Your task to perform on an android device: Show me productivity apps on the Play Store Image 0: 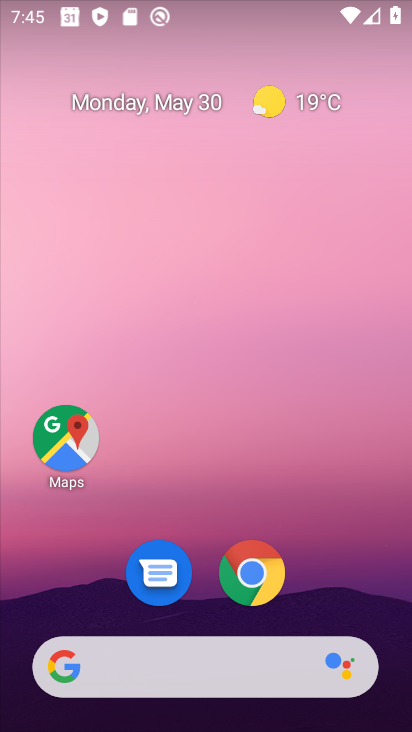
Step 0: drag from (201, 599) to (215, 340)
Your task to perform on an android device: Show me productivity apps on the Play Store Image 1: 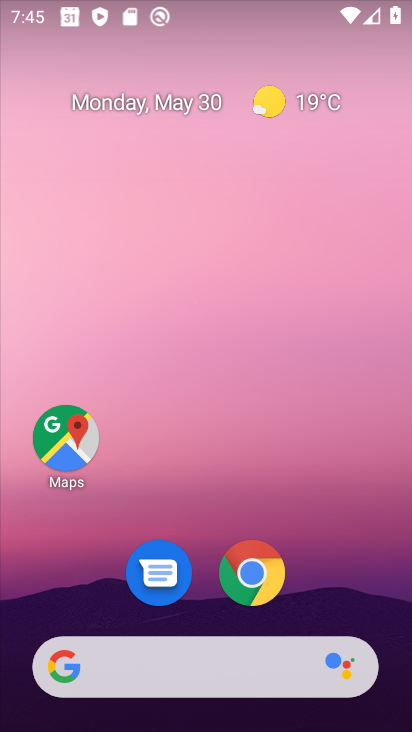
Step 1: drag from (202, 617) to (223, 430)
Your task to perform on an android device: Show me productivity apps on the Play Store Image 2: 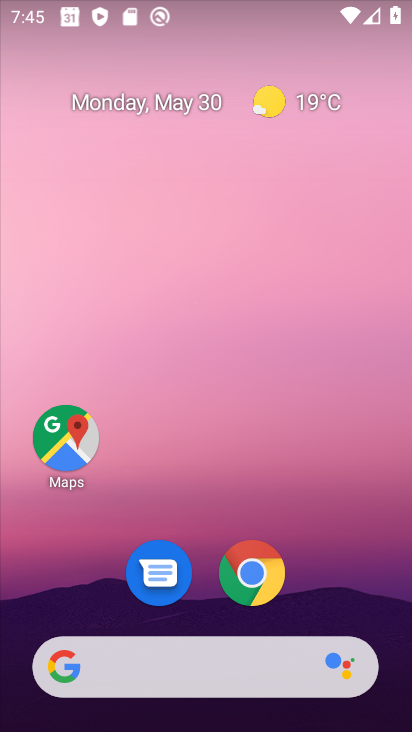
Step 2: drag from (198, 602) to (211, 362)
Your task to perform on an android device: Show me productivity apps on the Play Store Image 3: 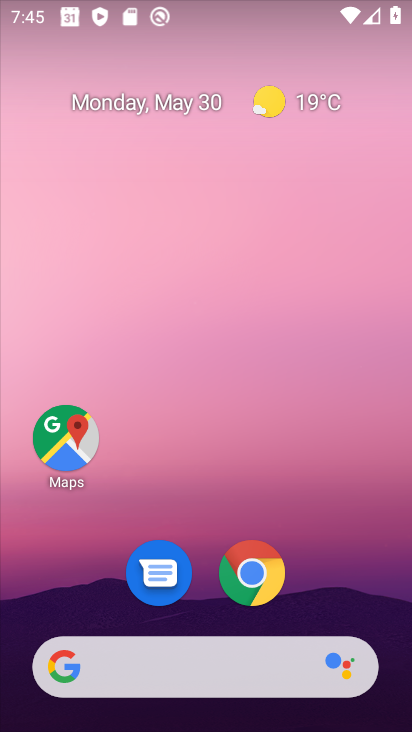
Step 3: drag from (202, 633) to (222, 26)
Your task to perform on an android device: Show me productivity apps on the Play Store Image 4: 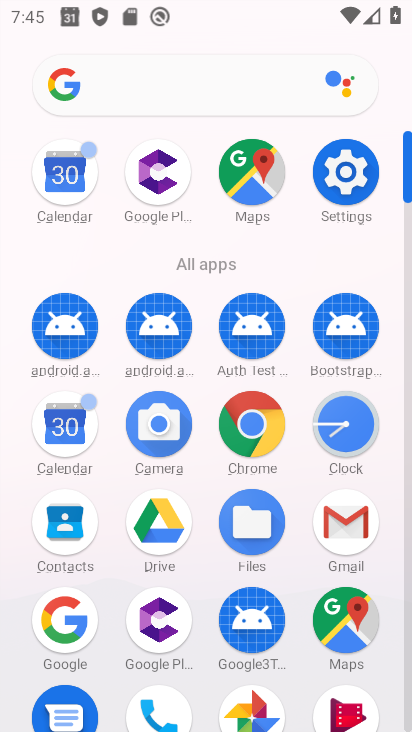
Step 4: drag from (107, 569) to (133, 325)
Your task to perform on an android device: Show me productivity apps on the Play Store Image 5: 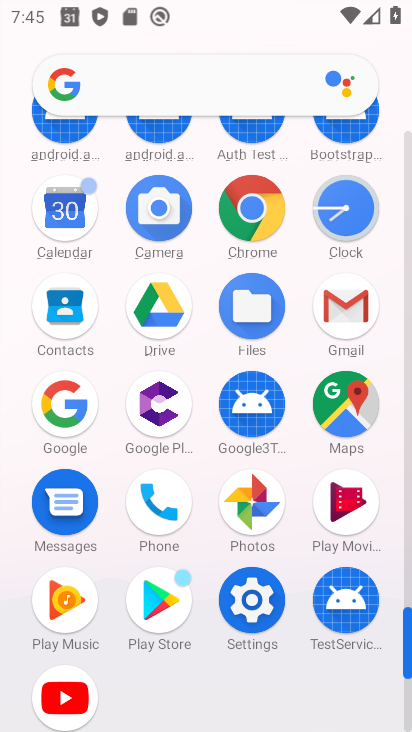
Step 5: click (165, 603)
Your task to perform on an android device: Show me productivity apps on the Play Store Image 6: 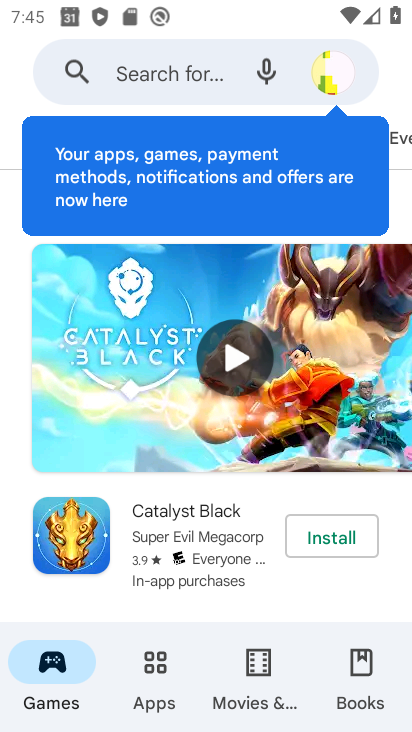
Step 6: click (152, 678)
Your task to perform on an android device: Show me productivity apps on the Play Store Image 7: 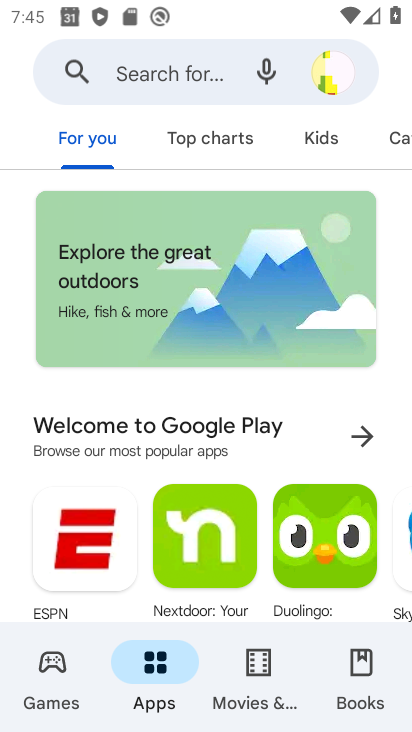
Step 7: click (395, 132)
Your task to perform on an android device: Show me productivity apps on the Play Store Image 8: 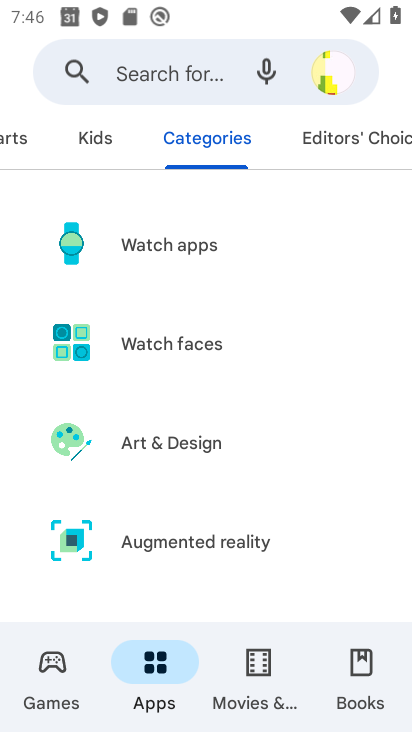
Step 8: drag from (173, 511) to (194, 415)
Your task to perform on an android device: Show me productivity apps on the Play Store Image 9: 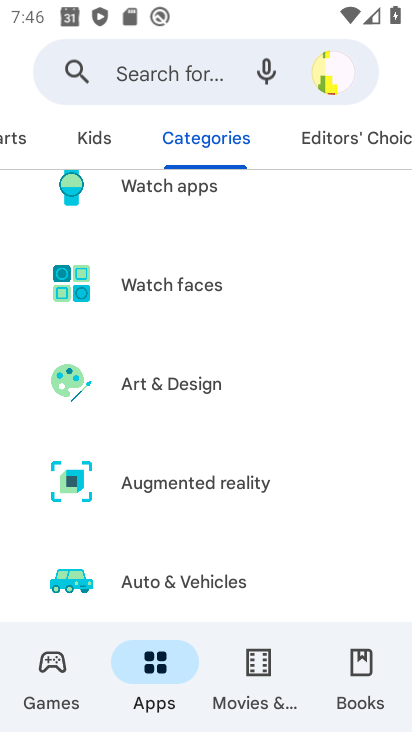
Step 9: drag from (159, 550) to (186, 393)
Your task to perform on an android device: Show me productivity apps on the Play Store Image 10: 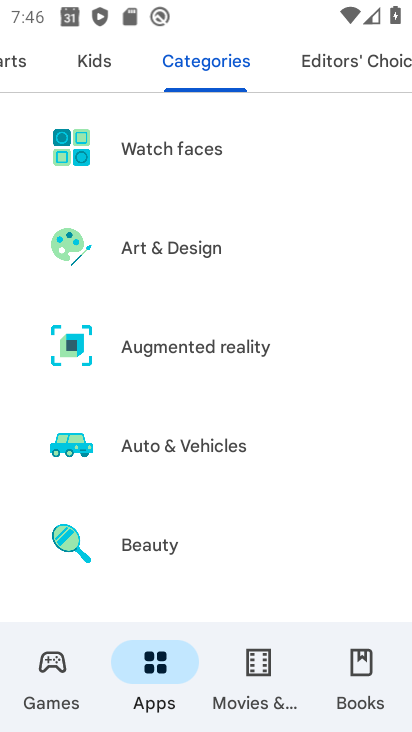
Step 10: drag from (149, 563) to (223, 192)
Your task to perform on an android device: Show me productivity apps on the Play Store Image 11: 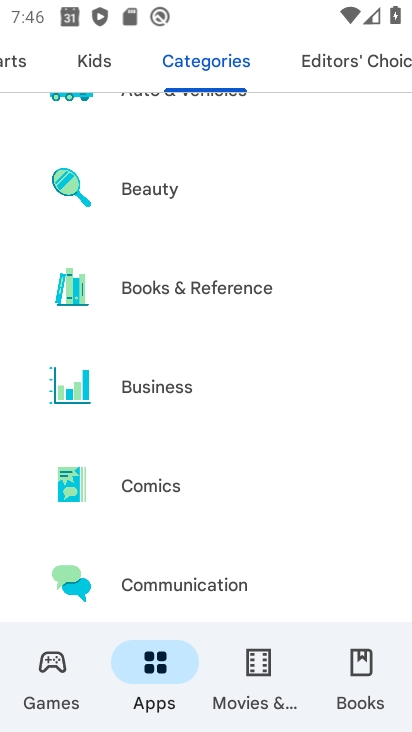
Step 11: drag from (195, 577) to (203, 402)
Your task to perform on an android device: Show me productivity apps on the Play Store Image 12: 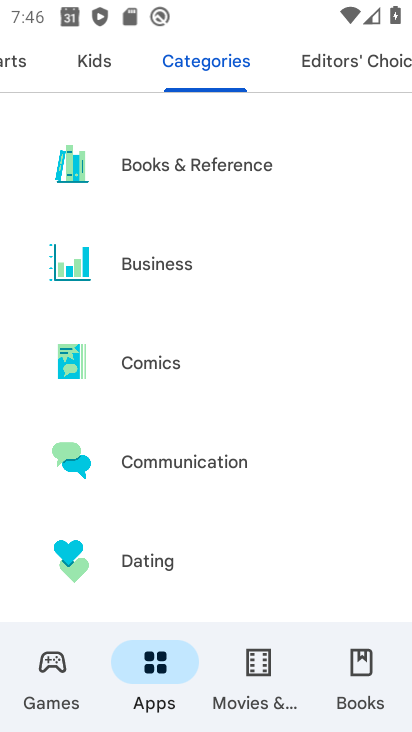
Step 12: drag from (162, 600) to (165, 561)
Your task to perform on an android device: Show me productivity apps on the Play Store Image 13: 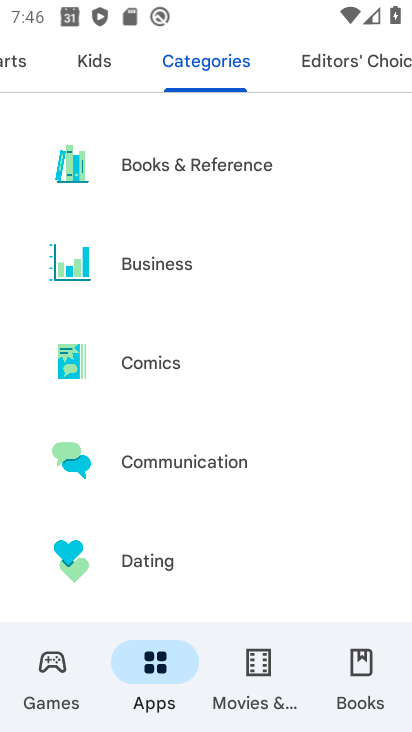
Step 13: drag from (158, 562) to (176, 400)
Your task to perform on an android device: Show me productivity apps on the Play Store Image 14: 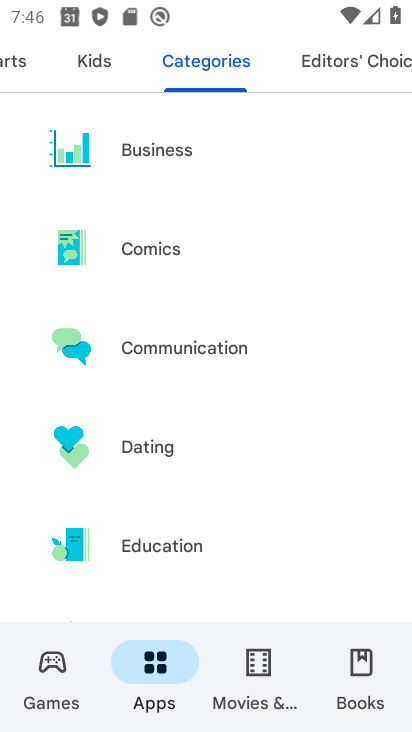
Step 14: drag from (152, 574) to (213, 211)
Your task to perform on an android device: Show me productivity apps on the Play Store Image 15: 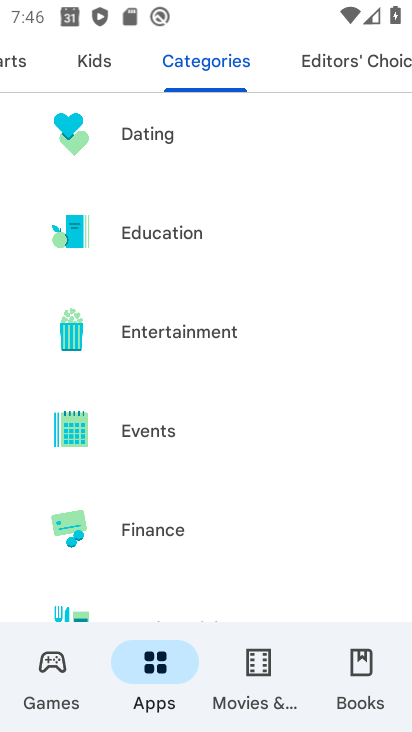
Step 15: drag from (156, 573) to (187, 197)
Your task to perform on an android device: Show me productivity apps on the Play Store Image 16: 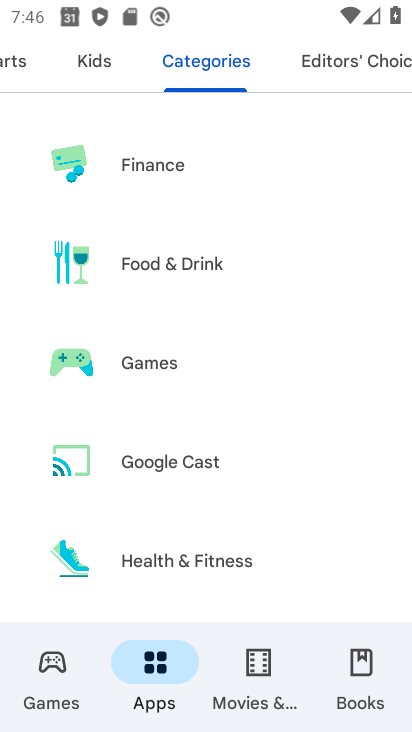
Step 16: drag from (173, 536) to (223, 200)
Your task to perform on an android device: Show me productivity apps on the Play Store Image 17: 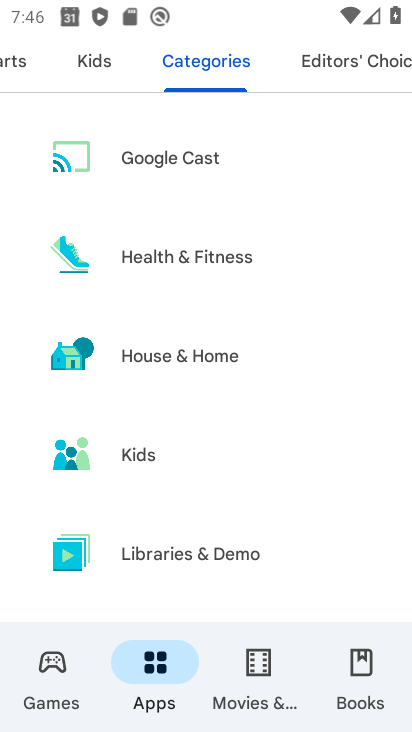
Step 17: drag from (184, 530) to (209, 239)
Your task to perform on an android device: Show me productivity apps on the Play Store Image 18: 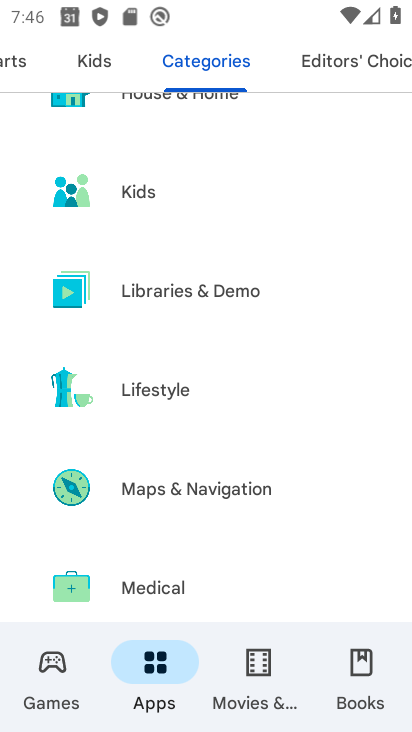
Step 18: drag from (142, 545) to (279, 0)
Your task to perform on an android device: Show me productivity apps on the Play Store Image 19: 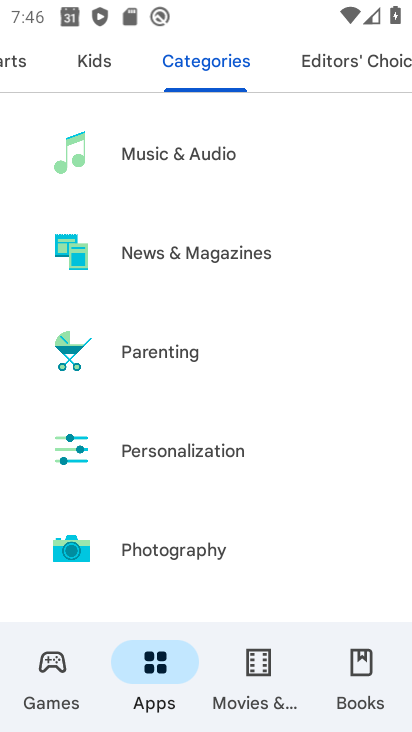
Step 19: drag from (219, 554) to (290, 147)
Your task to perform on an android device: Show me productivity apps on the Play Store Image 20: 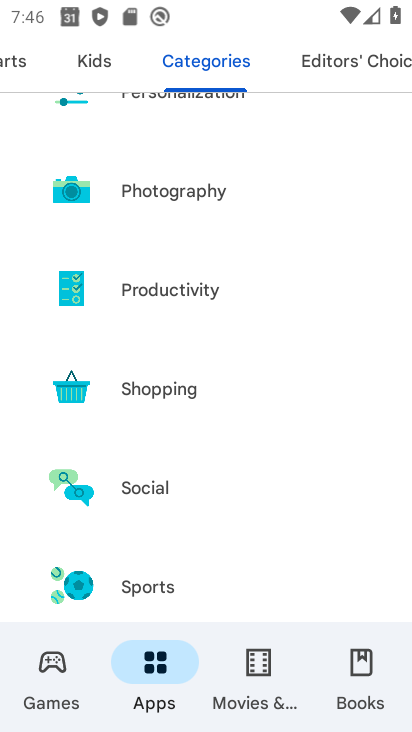
Step 20: click (186, 307)
Your task to perform on an android device: Show me productivity apps on the Play Store Image 21: 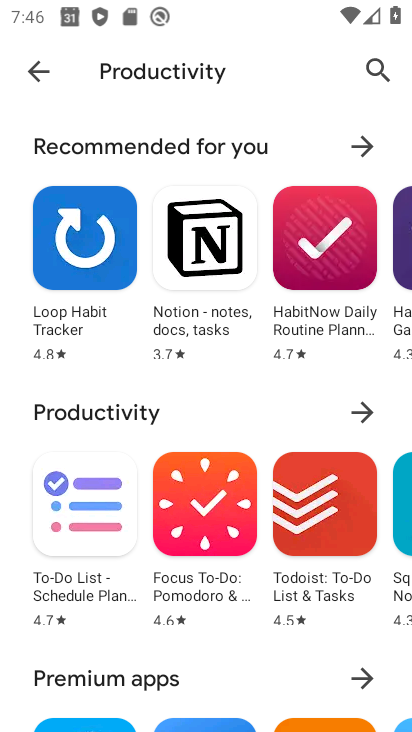
Step 21: task complete